Your task to perform on an android device: Go to battery settings Image 0: 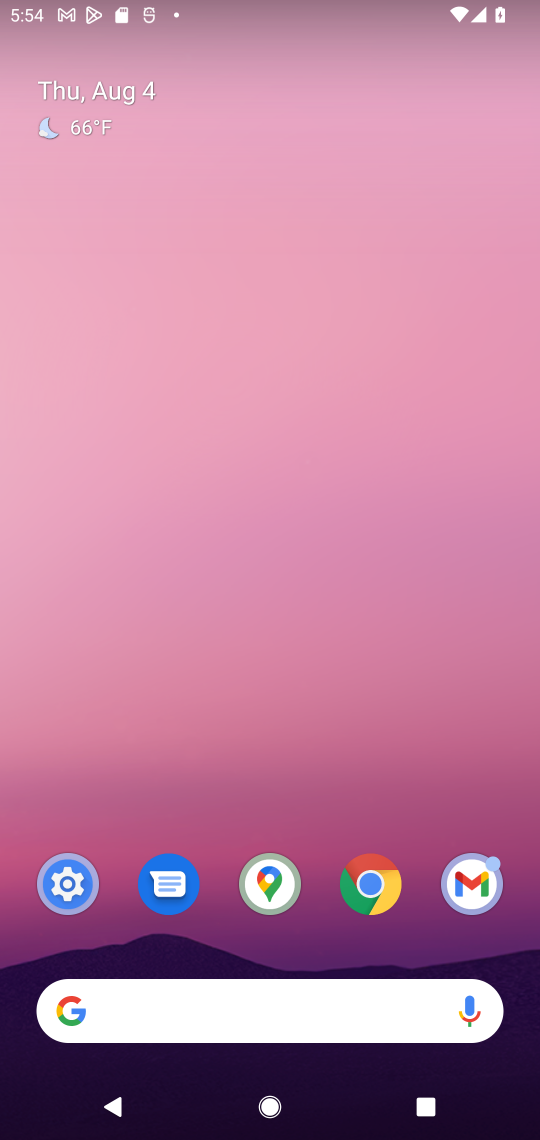
Step 0: click (57, 902)
Your task to perform on an android device: Go to battery settings Image 1: 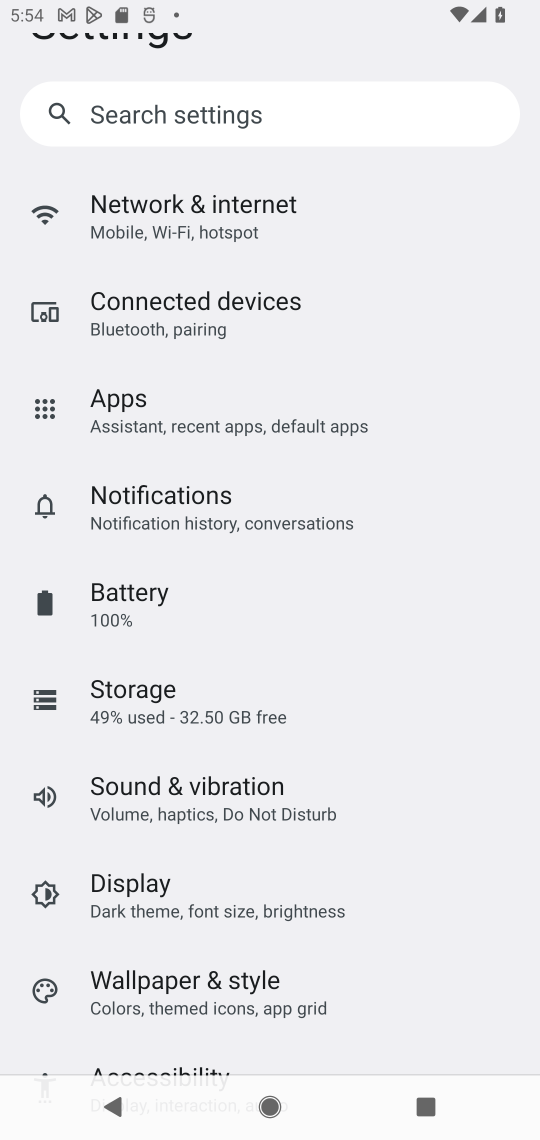
Step 1: click (196, 608)
Your task to perform on an android device: Go to battery settings Image 2: 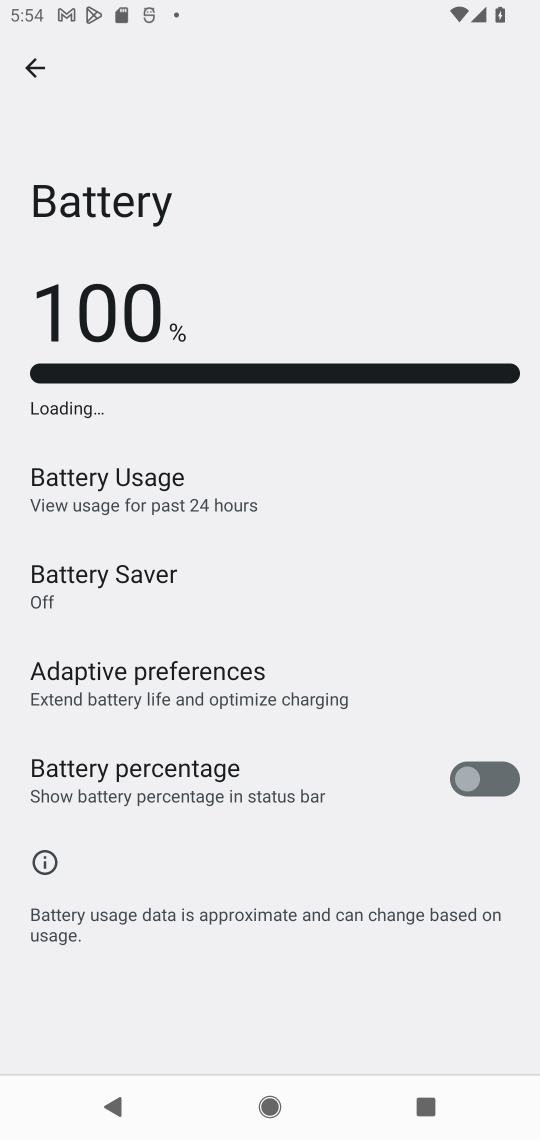
Step 2: task complete